Your task to perform on an android device: Search for sushi restaurants on Maps Image 0: 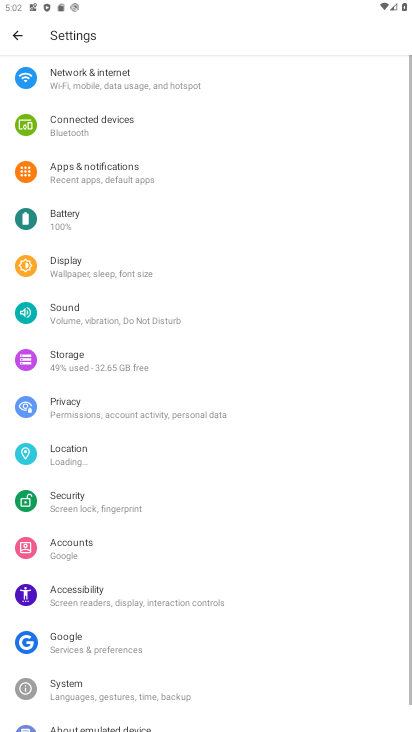
Step 0: press home button
Your task to perform on an android device: Search for sushi restaurants on Maps Image 1: 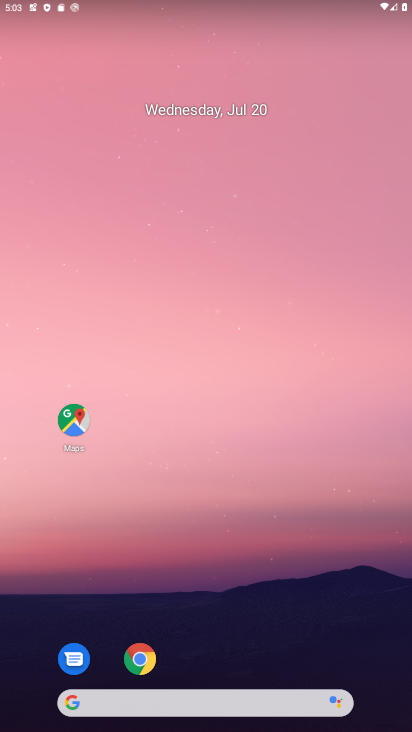
Step 1: click (77, 424)
Your task to perform on an android device: Search for sushi restaurants on Maps Image 2: 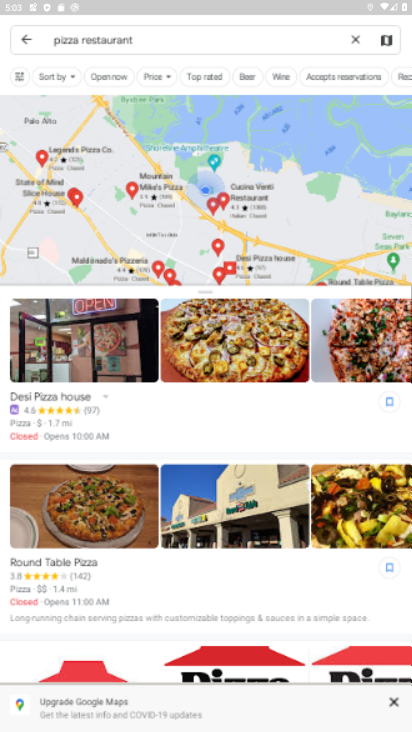
Step 2: click (162, 40)
Your task to perform on an android device: Search for sushi restaurants on Maps Image 3: 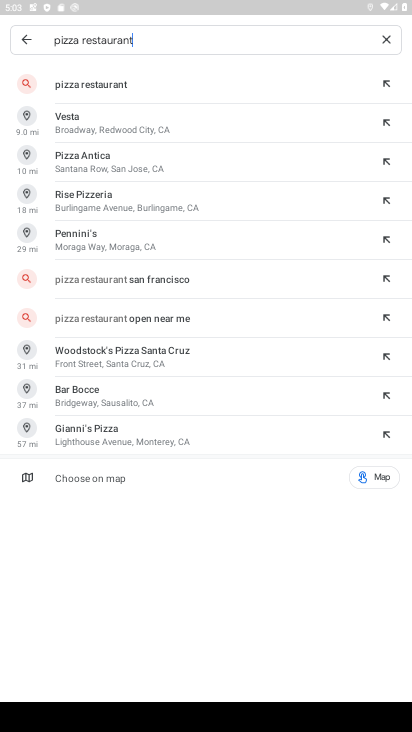
Step 3: click (388, 41)
Your task to perform on an android device: Search for sushi restaurants on Maps Image 4: 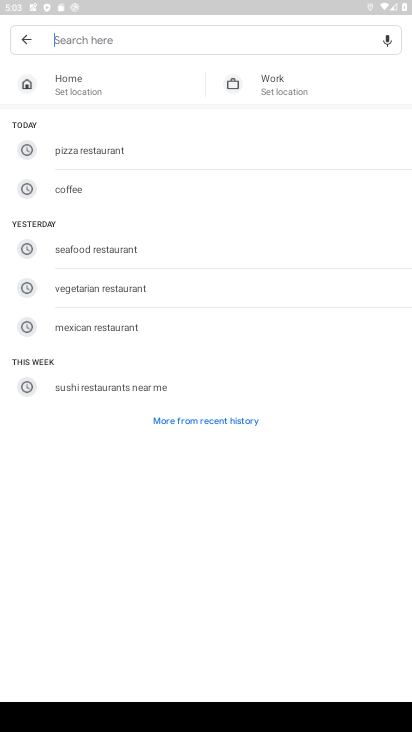
Step 4: click (131, 38)
Your task to perform on an android device: Search for sushi restaurants on Maps Image 5: 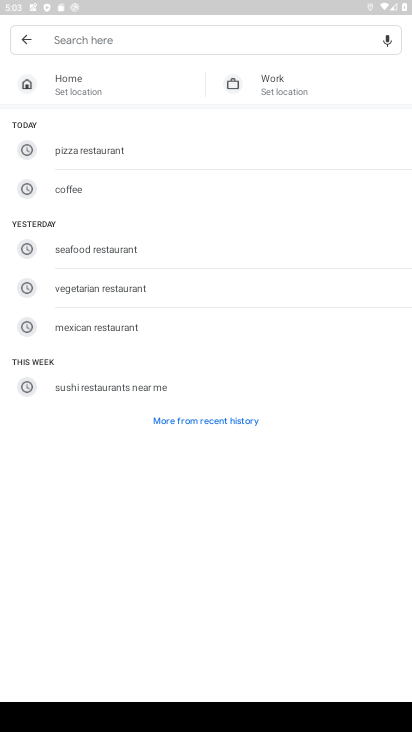
Step 5: click (96, 384)
Your task to perform on an android device: Search for sushi restaurants on Maps Image 6: 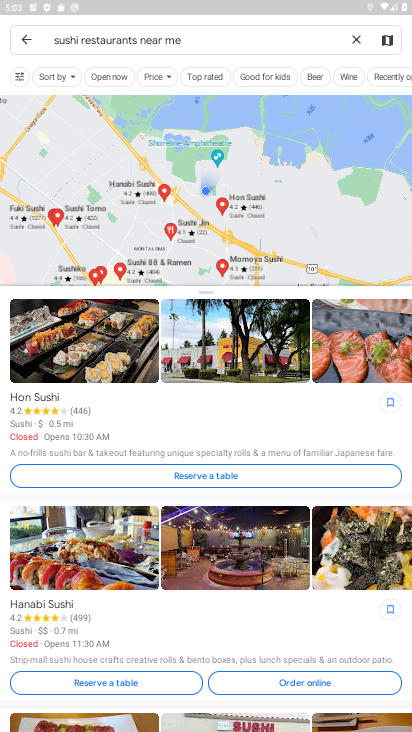
Step 6: task complete